Your task to perform on an android device: Go to notification settings Image 0: 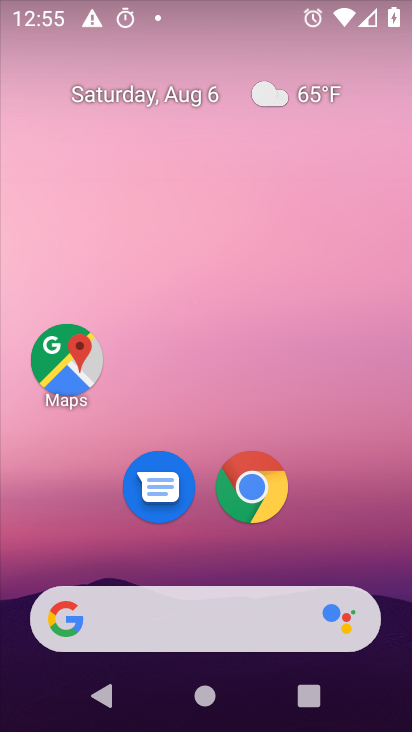
Step 0: drag from (217, 524) to (213, 7)
Your task to perform on an android device: Go to notification settings Image 1: 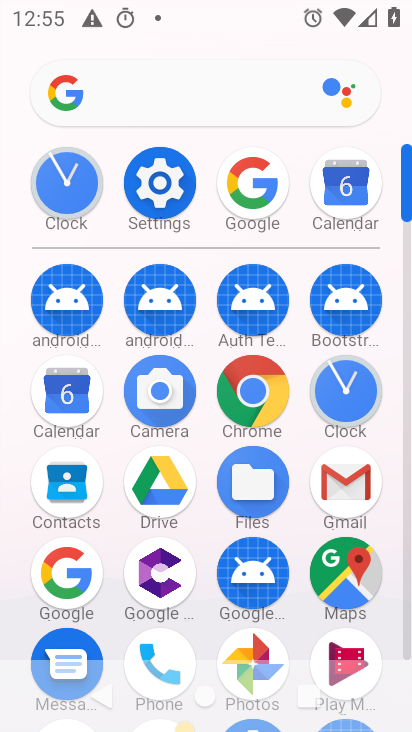
Step 1: click (165, 175)
Your task to perform on an android device: Go to notification settings Image 2: 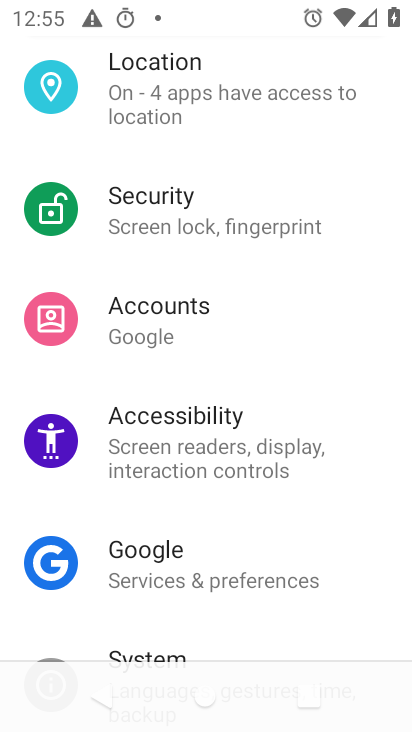
Step 2: drag from (302, 186) to (174, 729)
Your task to perform on an android device: Go to notification settings Image 3: 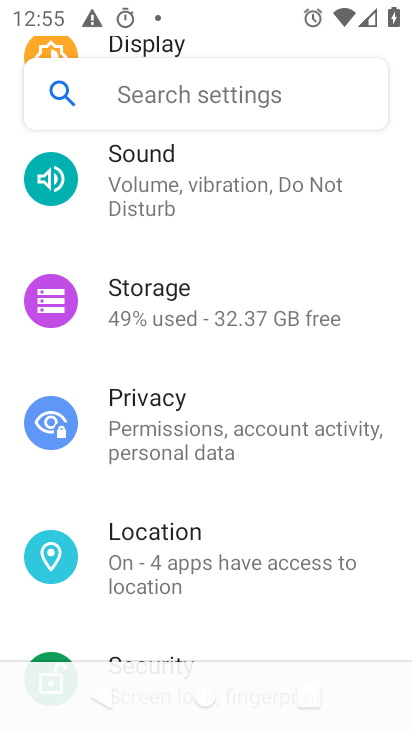
Step 3: drag from (212, 252) to (189, 726)
Your task to perform on an android device: Go to notification settings Image 4: 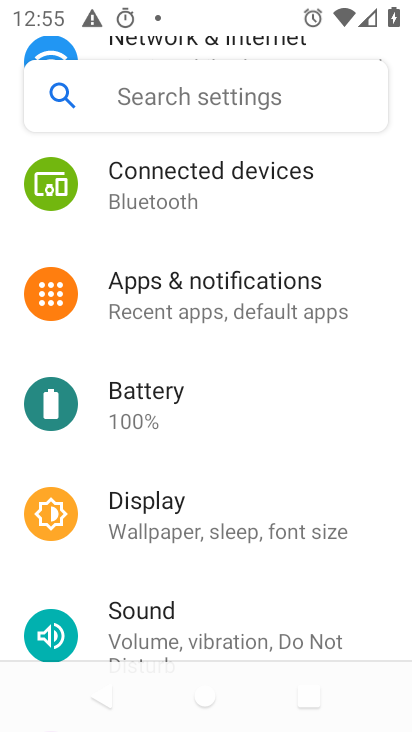
Step 4: click (210, 310)
Your task to perform on an android device: Go to notification settings Image 5: 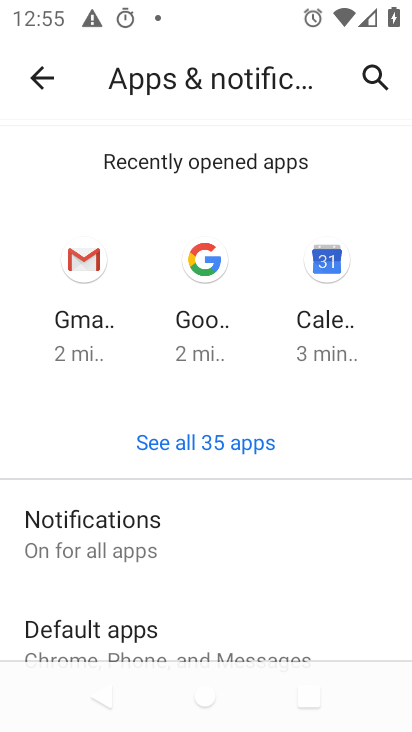
Step 5: click (139, 530)
Your task to perform on an android device: Go to notification settings Image 6: 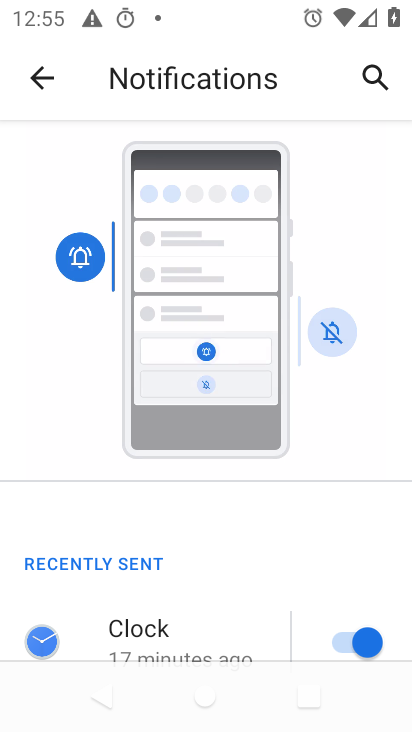
Step 6: task complete